Your task to perform on an android device: move an email to a new category in the gmail app Image 0: 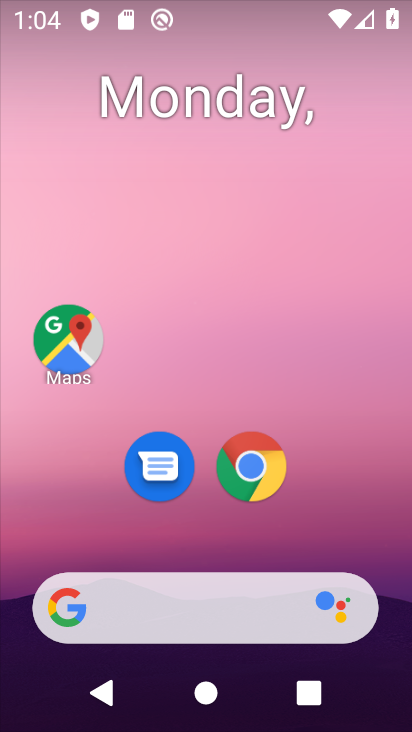
Step 0: drag from (207, 559) to (270, 89)
Your task to perform on an android device: move an email to a new category in the gmail app Image 1: 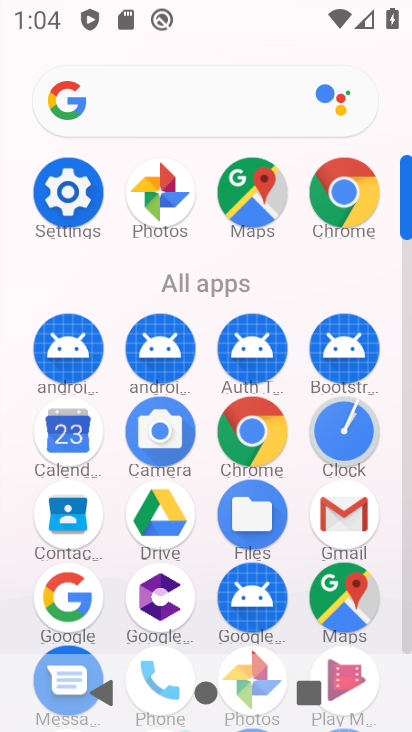
Step 1: click (334, 519)
Your task to perform on an android device: move an email to a new category in the gmail app Image 2: 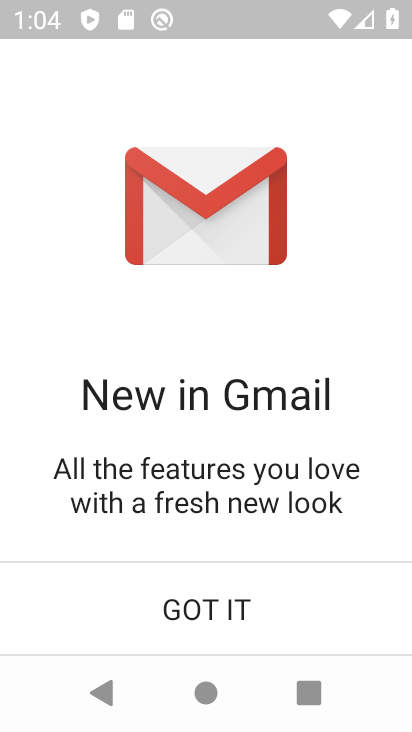
Step 2: click (217, 607)
Your task to perform on an android device: move an email to a new category in the gmail app Image 3: 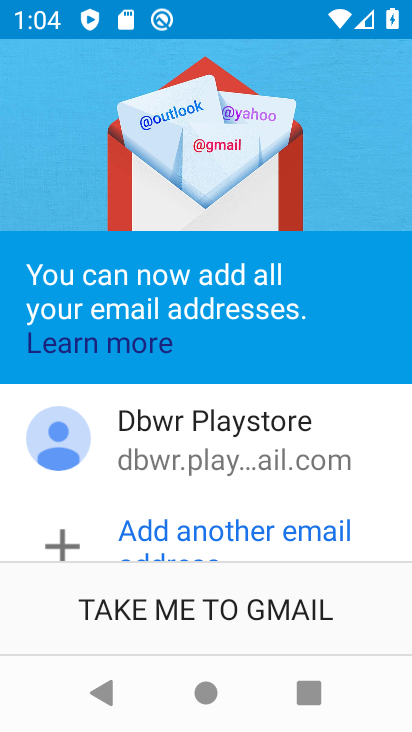
Step 3: click (242, 604)
Your task to perform on an android device: move an email to a new category in the gmail app Image 4: 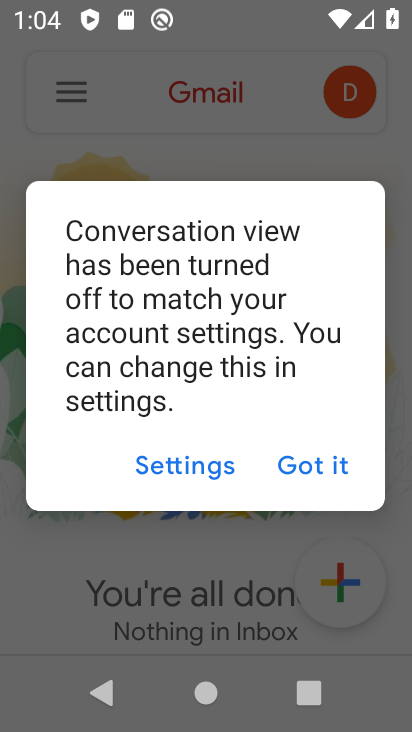
Step 4: click (314, 477)
Your task to perform on an android device: move an email to a new category in the gmail app Image 5: 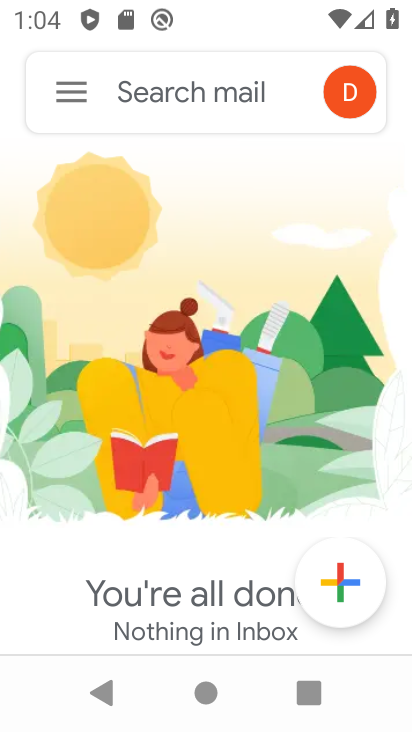
Step 5: click (66, 90)
Your task to perform on an android device: move an email to a new category in the gmail app Image 6: 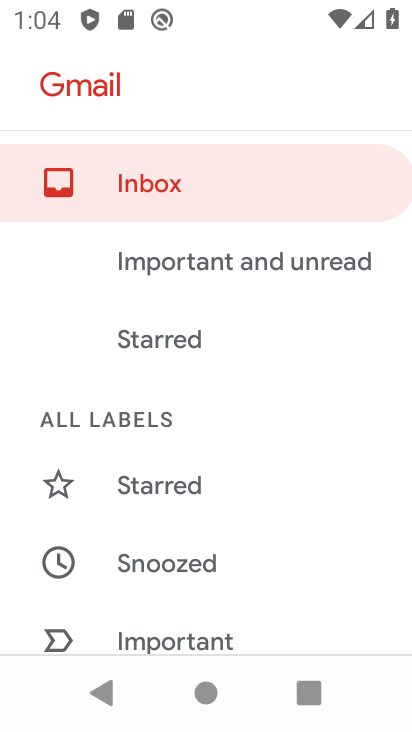
Step 6: drag from (131, 540) to (171, 236)
Your task to perform on an android device: move an email to a new category in the gmail app Image 7: 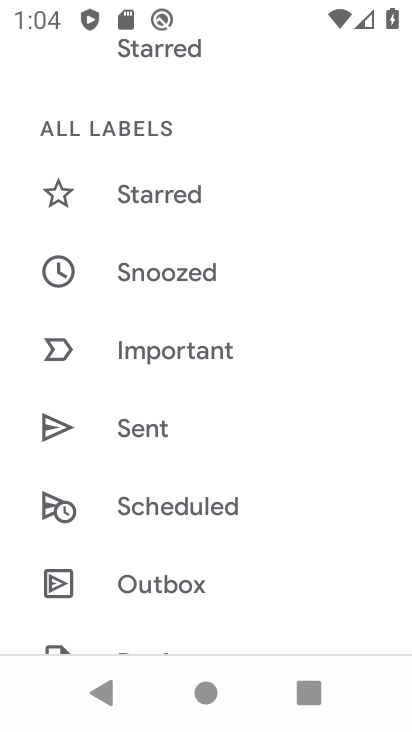
Step 7: drag from (183, 533) to (224, 231)
Your task to perform on an android device: move an email to a new category in the gmail app Image 8: 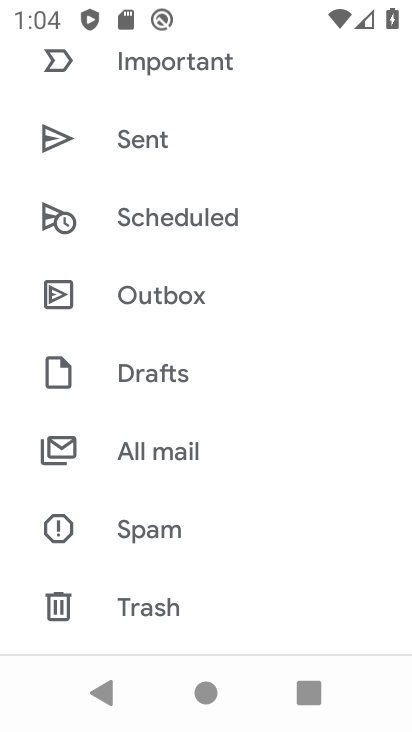
Step 8: click (187, 451)
Your task to perform on an android device: move an email to a new category in the gmail app Image 9: 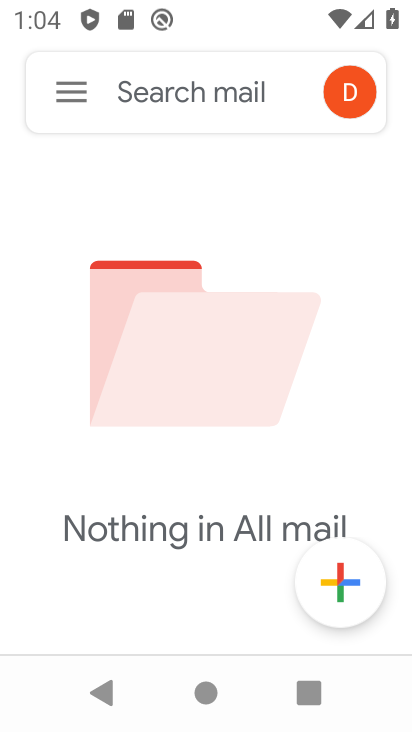
Step 9: task complete